Your task to perform on an android device: visit the assistant section in the google photos Image 0: 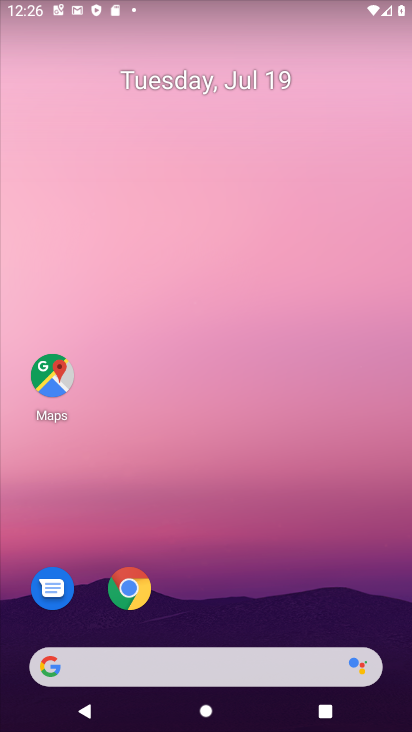
Step 0: drag from (348, 613) to (223, 145)
Your task to perform on an android device: visit the assistant section in the google photos Image 1: 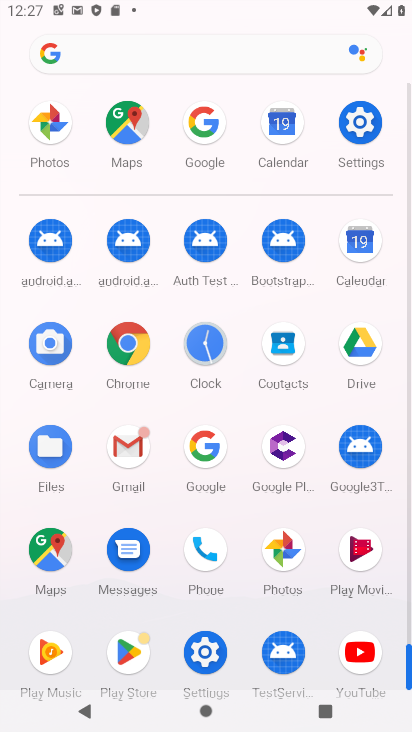
Step 1: click (279, 567)
Your task to perform on an android device: visit the assistant section in the google photos Image 2: 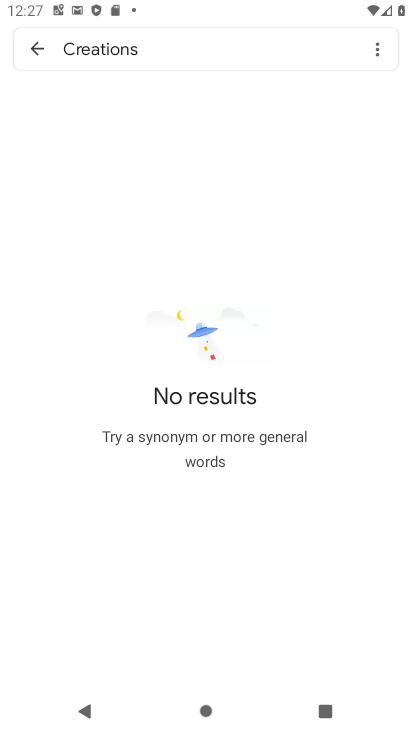
Step 2: press back button
Your task to perform on an android device: visit the assistant section in the google photos Image 3: 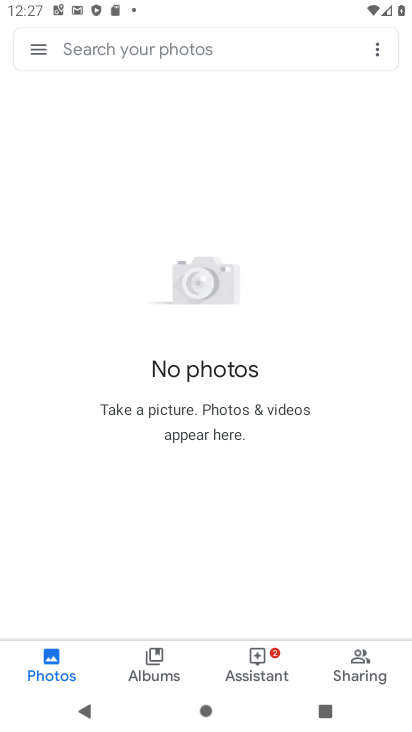
Step 3: click (264, 648)
Your task to perform on an android device: visit the assistant section in the google photos Image 4: 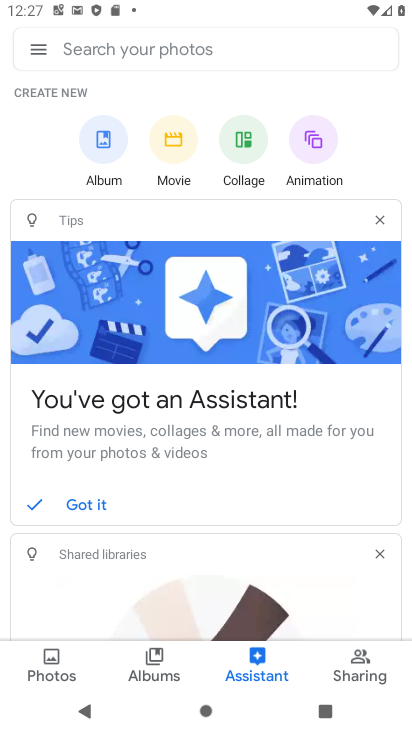
Step 4: task complete